Your task to perform on an android device: toggle notifications settings in the gmail app Image 0: 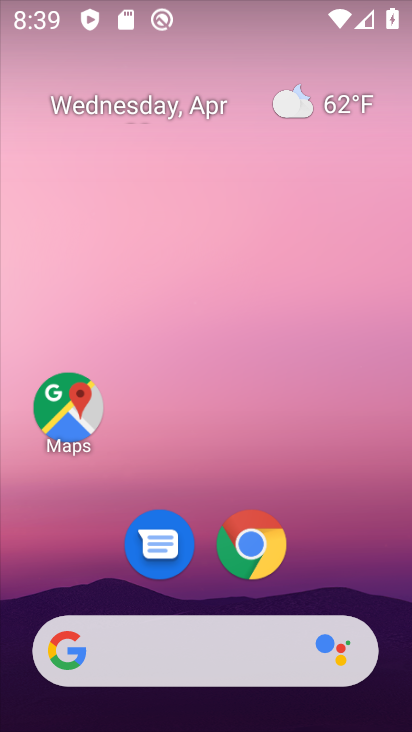
Step 0: drag from (331, 521) to (226, 141)
Your task to perform on an android device: toggle notifications settings in the gmail app Image 1: 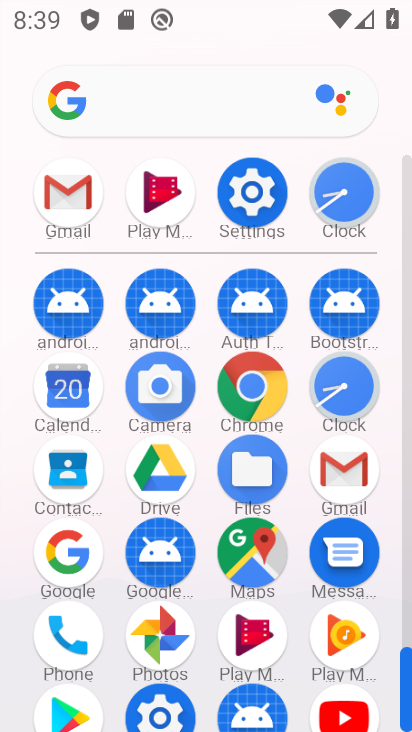
Step 1: click (349, 479)
Your task to perform on an android device: toggle notifications settings in the gmail app Image 2: 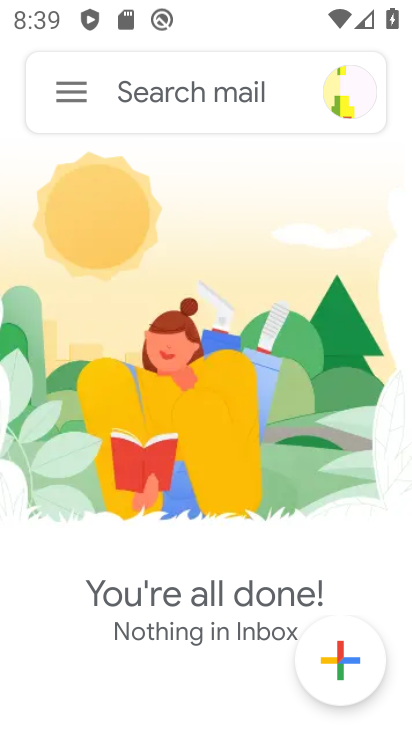
Step 2: click (87, 97)
Your task to perform on an android device: toggle notifications settings in the gmail app Image 3: 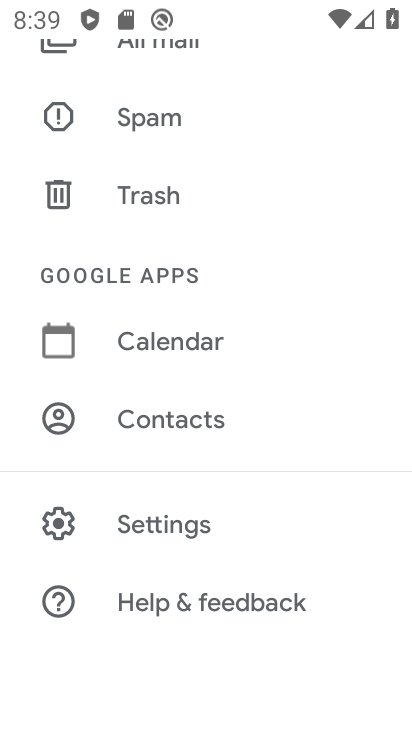
Step 3: click (176, 528)
Your task to perform on an android device: toggle notifications settings in the gmail app Image 4: 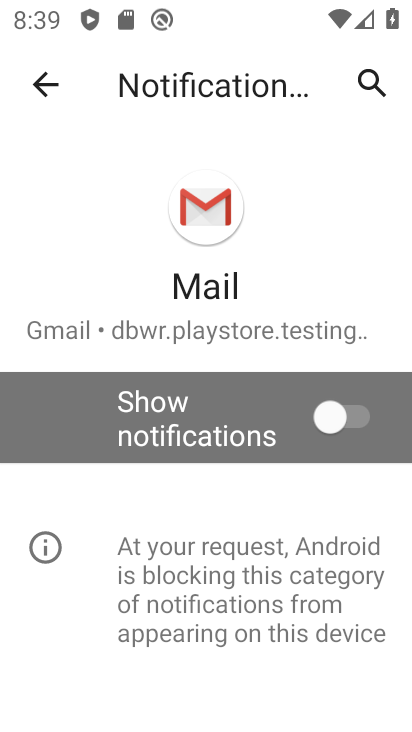
Step 4: click (345, 422)
Your task to perform on an android device: toggle notifications settings in the gmail app Image 5: 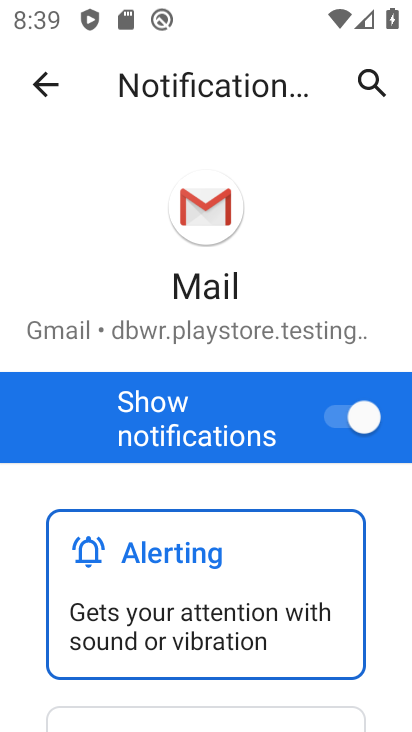
Step 5: task complete